Your task to perform on an android device: turn on bluetooth scan Image 0: 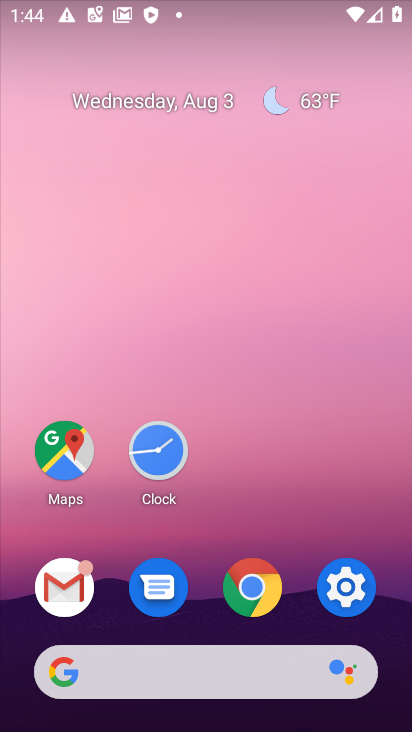
Step 0: click (241, 389)
Your task to perform on an android device: turn on bluetooth scan Image 1: 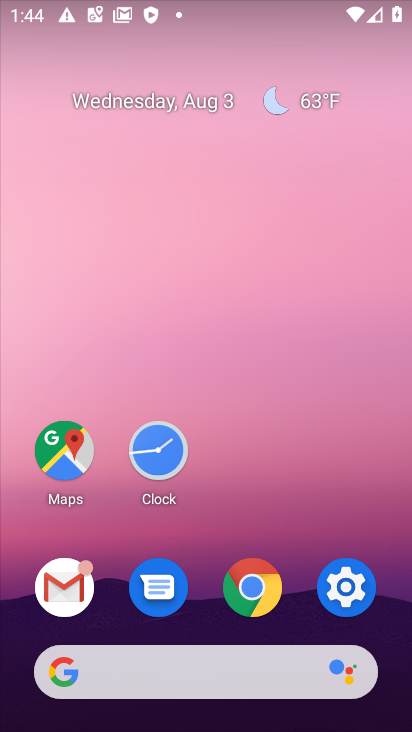
Step 1: click (344, 587)
Your task to perform on an android device: turn on bluetooth scan Image 2: 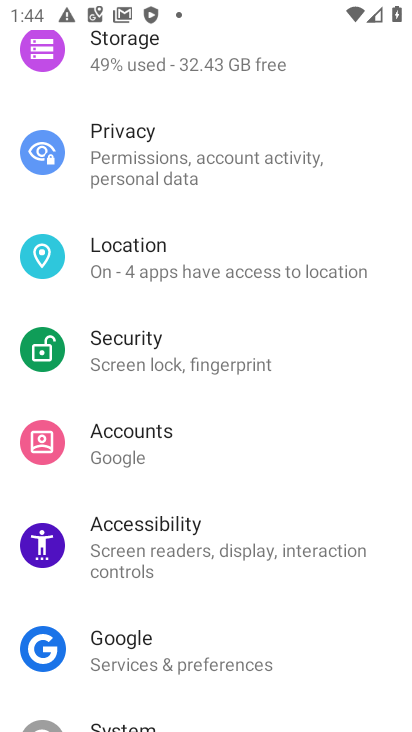
Step 2: click (128, 247)
Your task to perform on an android device: turn on bluetooth scan Image 3: 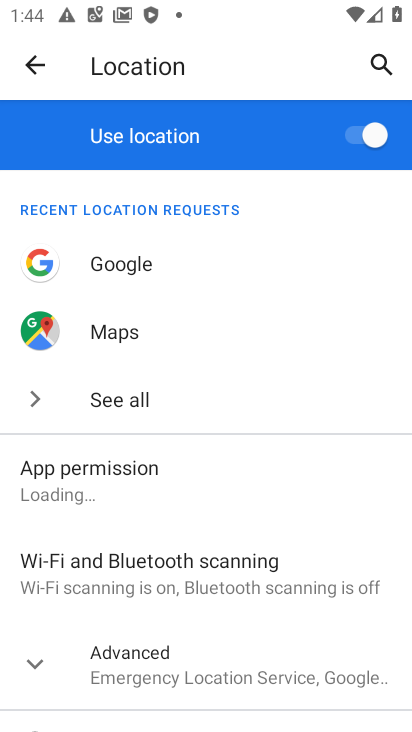
Step 3: drag from (179, 497) to (236, 246)
Your task to perform on an android device: turn on bluetooth scan Image 4: 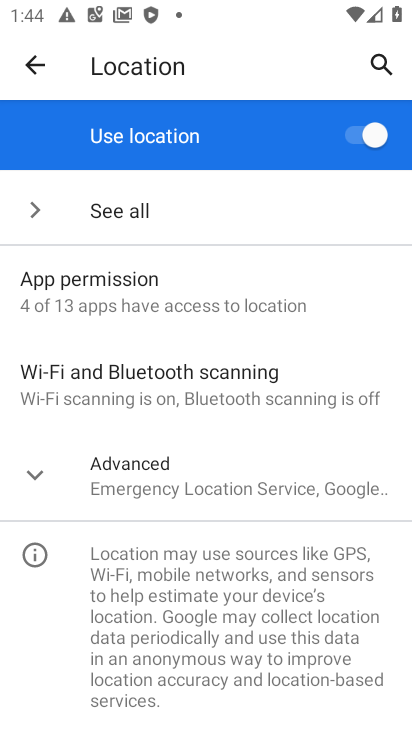
Step 4: click (109, 386)
Your task to perform on an android device: turn on bluetooth scan Image 5: 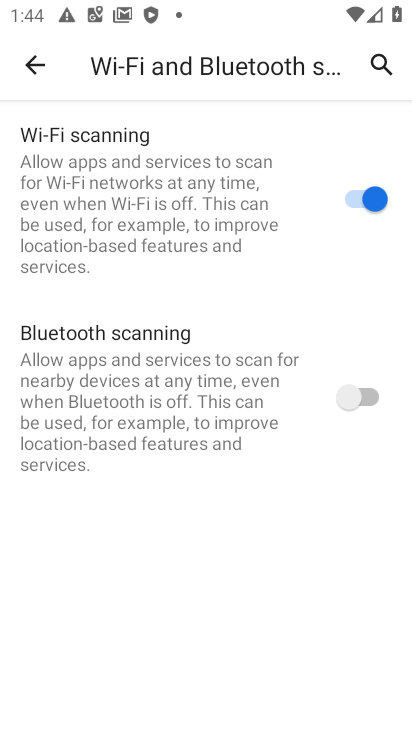
Step 5: click (362, 397)
Your task to perform on an android device: turn on bluetooth scan Image 6: 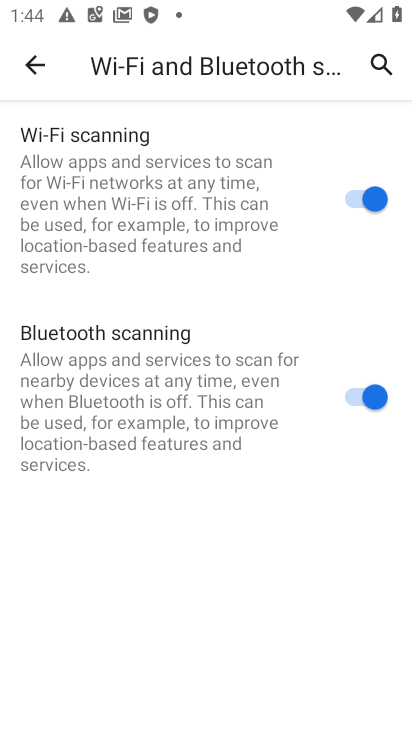
Step 6: task complete